Your task to perform on an android device: Open settings Image 0: 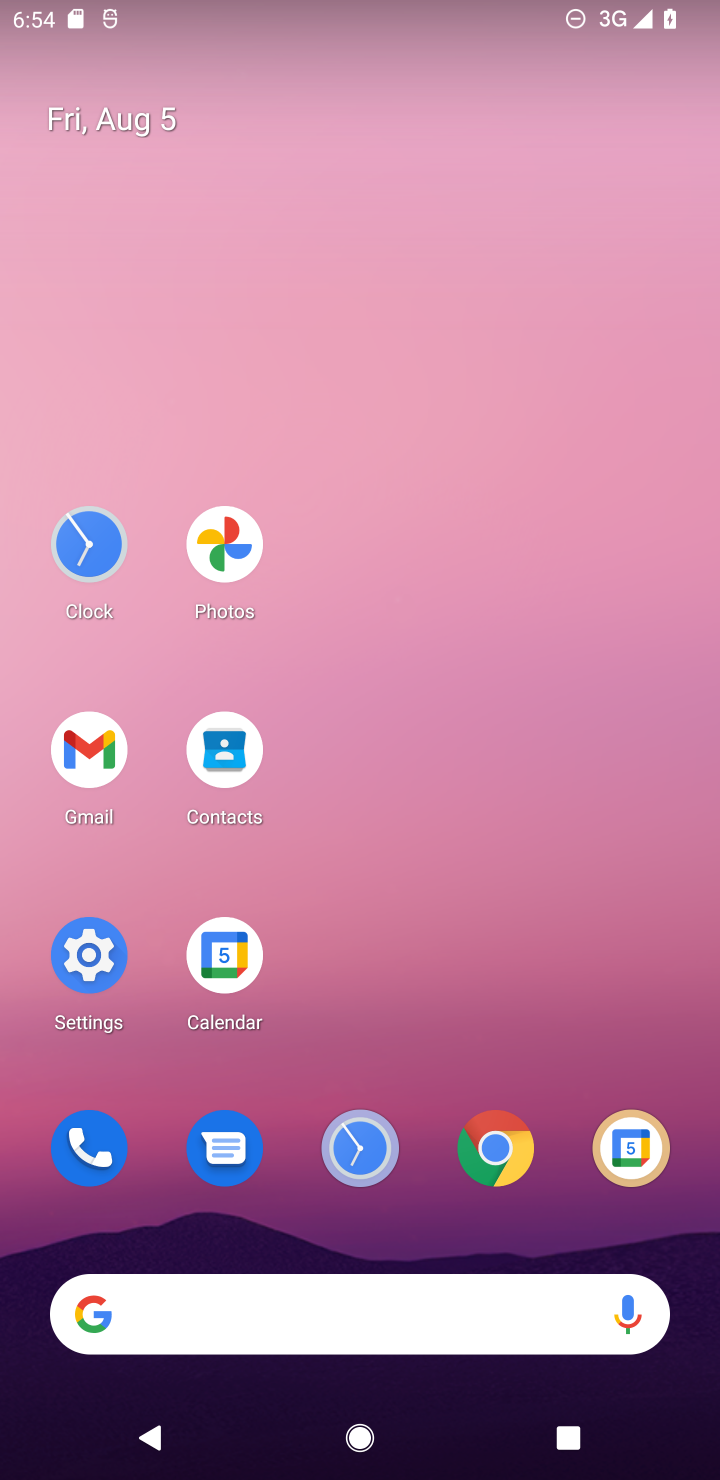
Step 0: click (78, 947)
Your task to perform on an android device: Open settings Image 1: 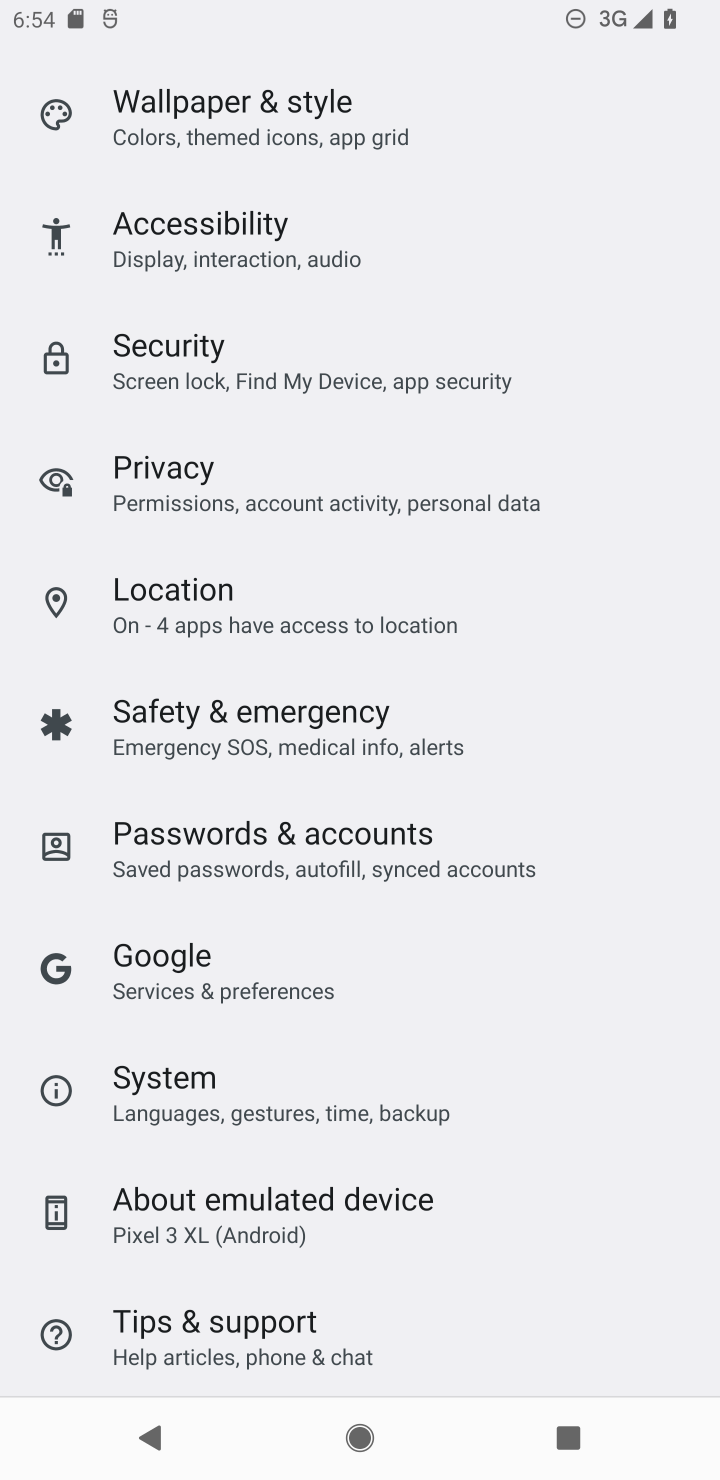
Step 1: task complete